Your task to perform on an android device: How big is a dinosaur? Image 0: 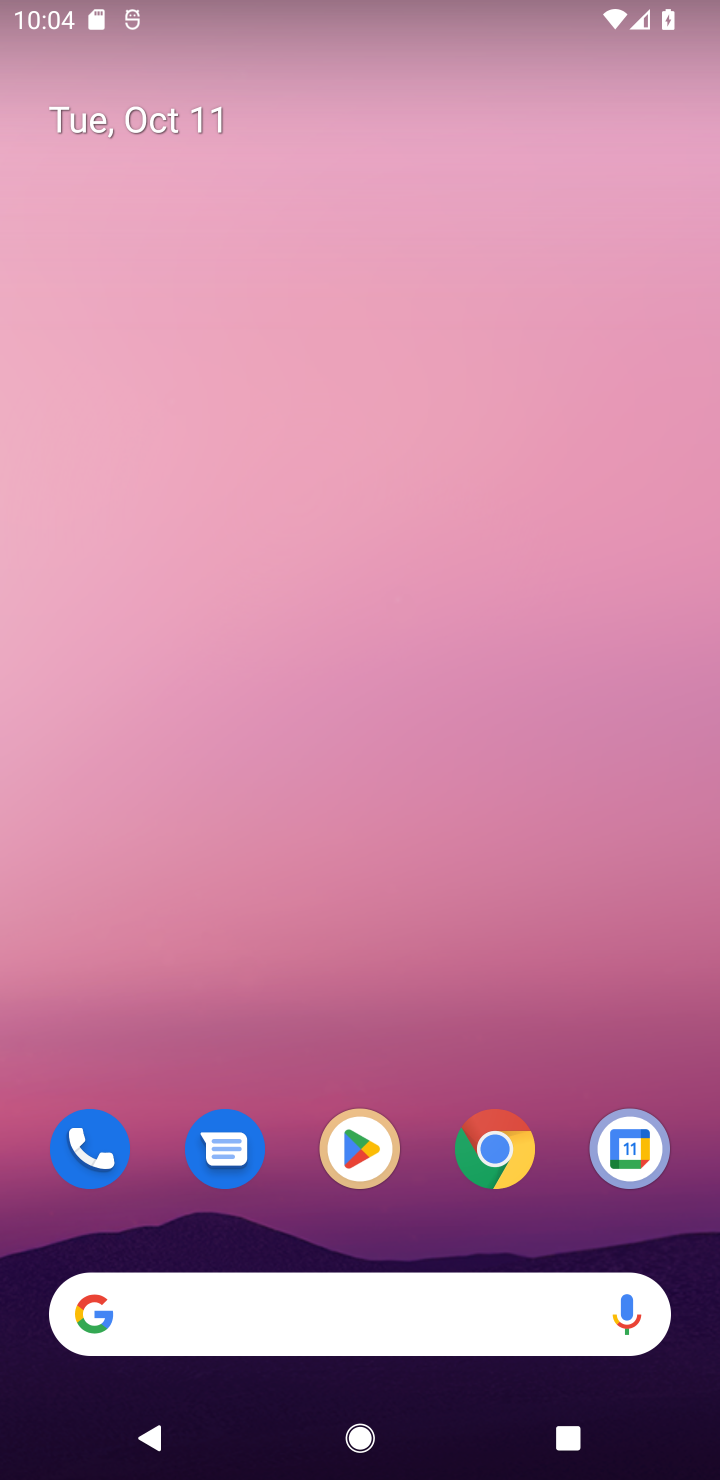
Step 0: click (342, 1300)
Your task to perform on an android device: How big is a dinosaur? Image 1: 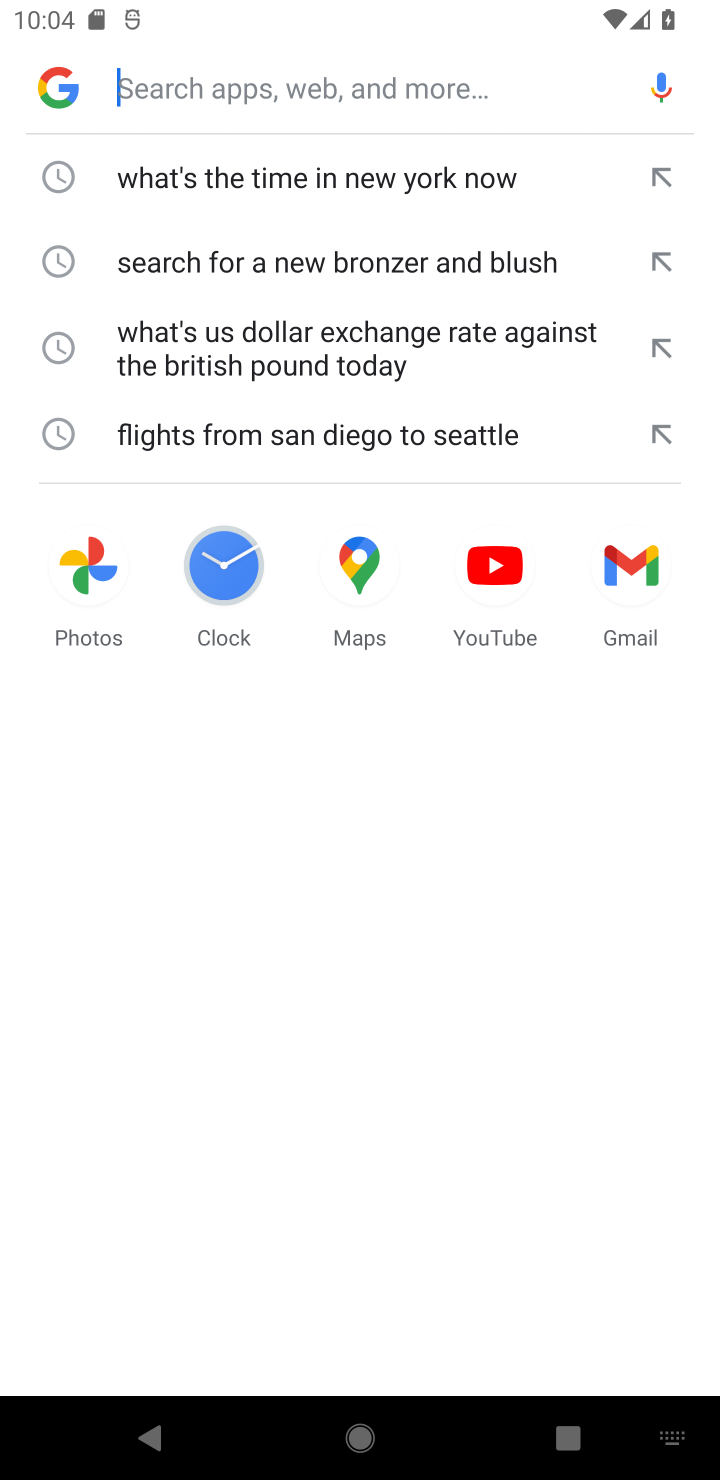
Step 1: type "How big is a dinosaur?"
Your task to perform on an android device: How big is a dinosaur? Image 2: 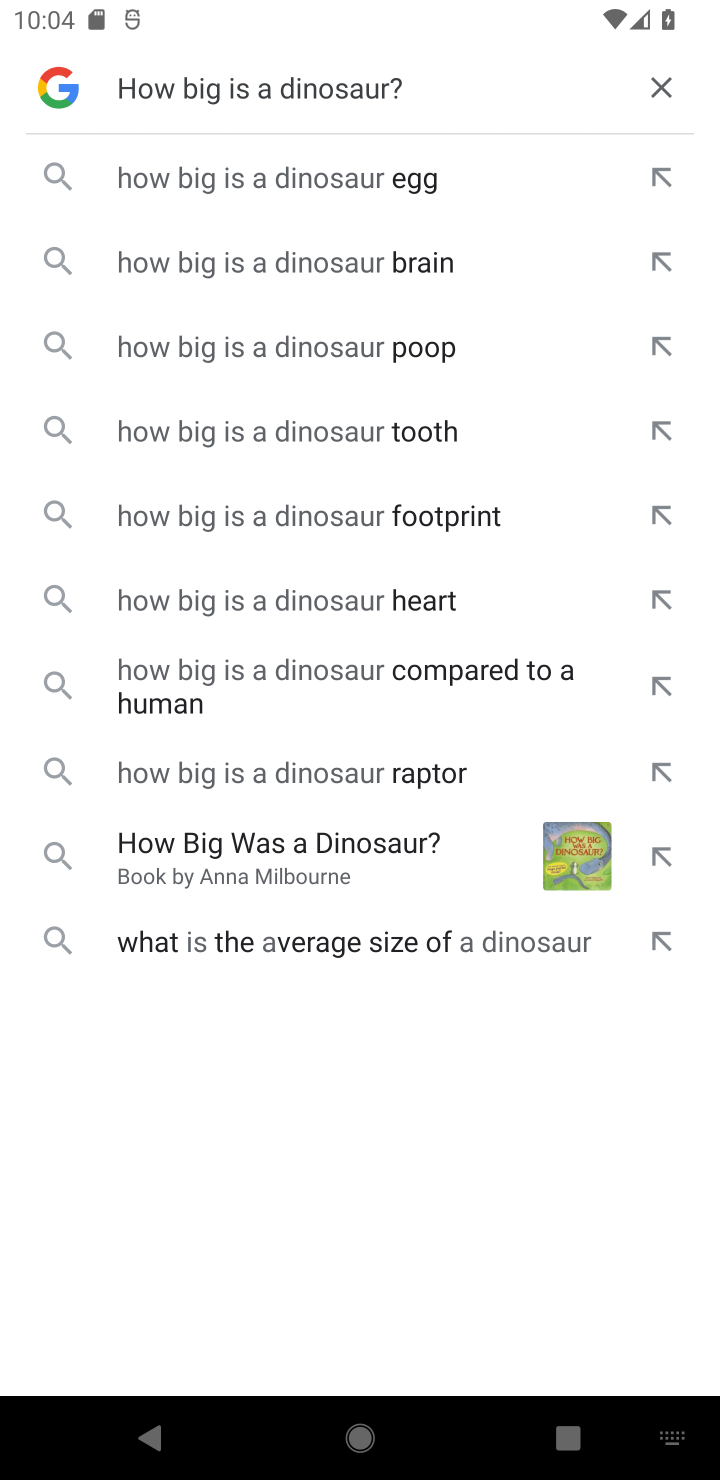
Step 2: click (310, 851)
Your task to perform on an android device: How big is a dinosaur? Image 3: 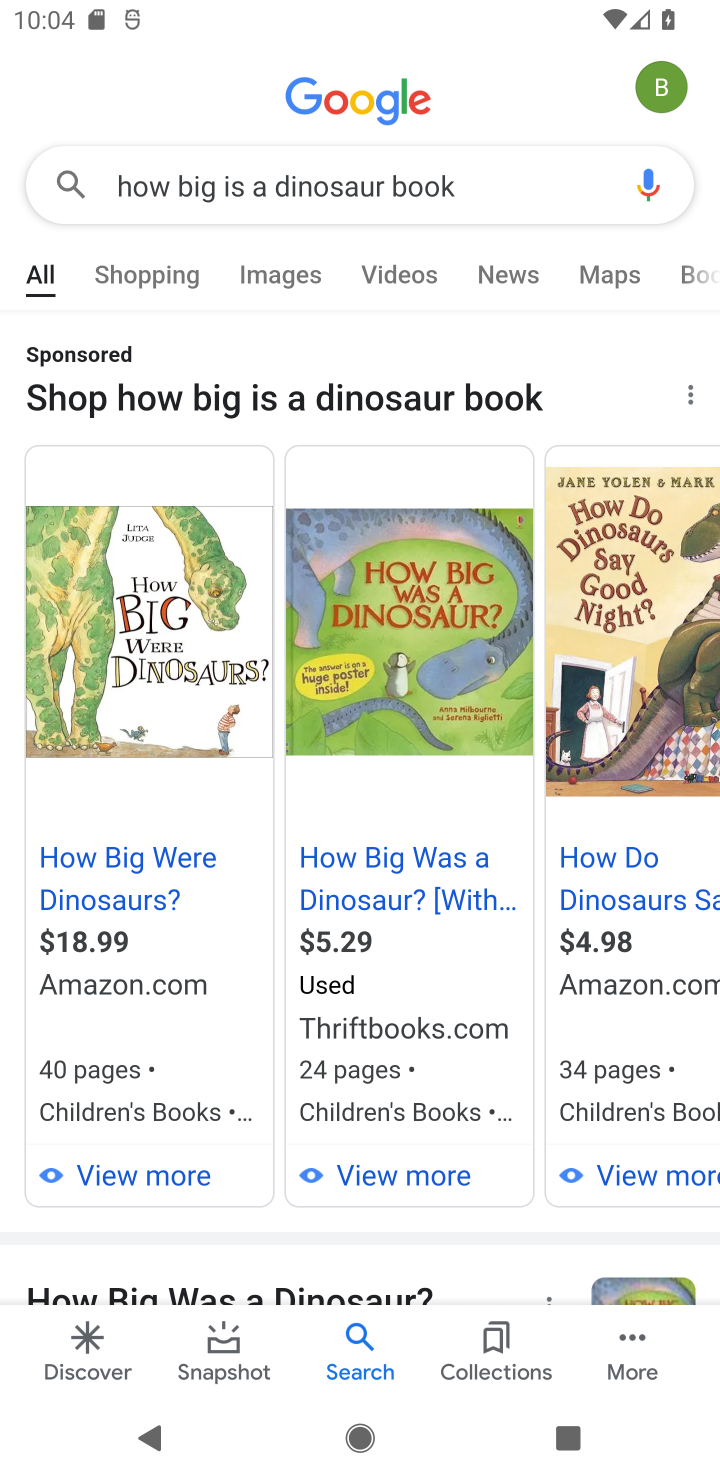
Step 3: task complete